Your task to perform on an android device: Open location settings Image 0: 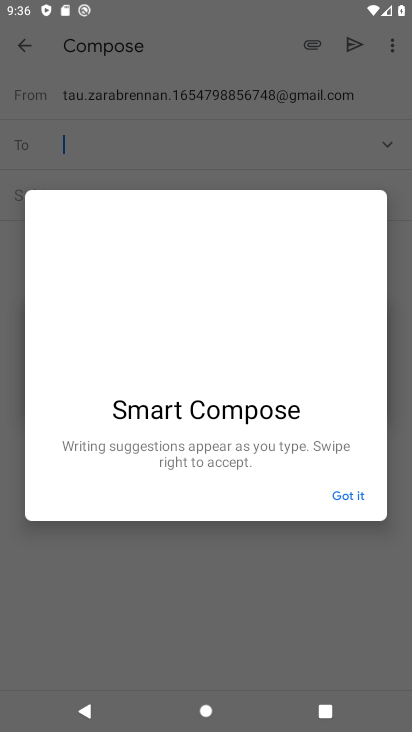
Step 0: press back button
Your task to perform on an android device: Open location settings Image 1: 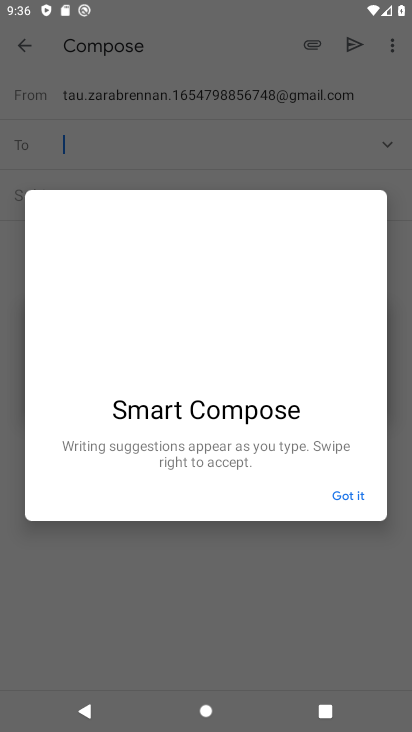
Step 1: click (365, 490)
Your task to perform on an android device: Open location settings Image 2: 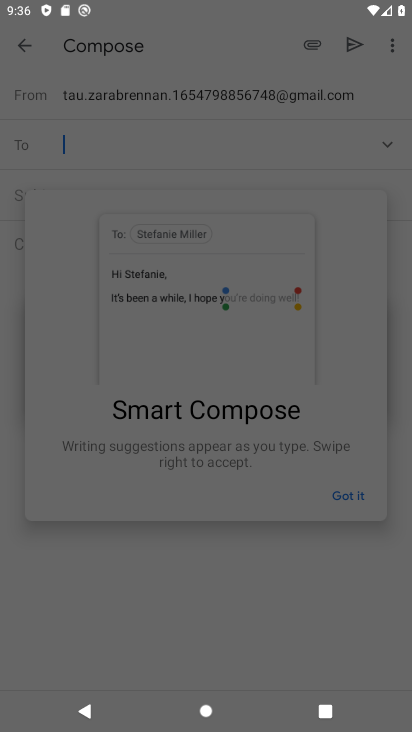
Step 2: press back button
Your task to perform on an android device: Open location settings Image 3: 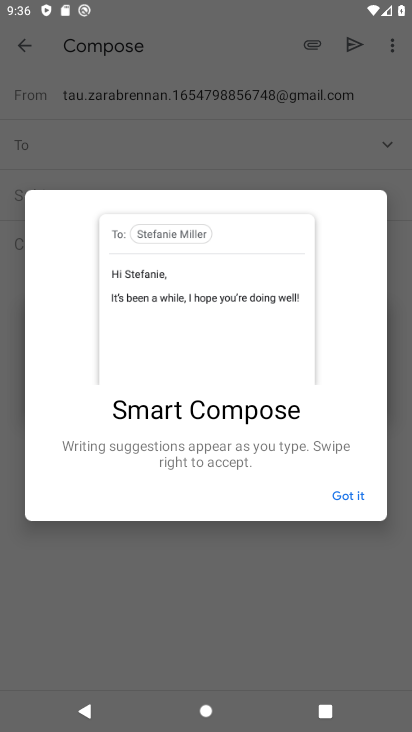
Step 3: click (353, 499)
Your task to perform on an android device: Open location settings Image 4: 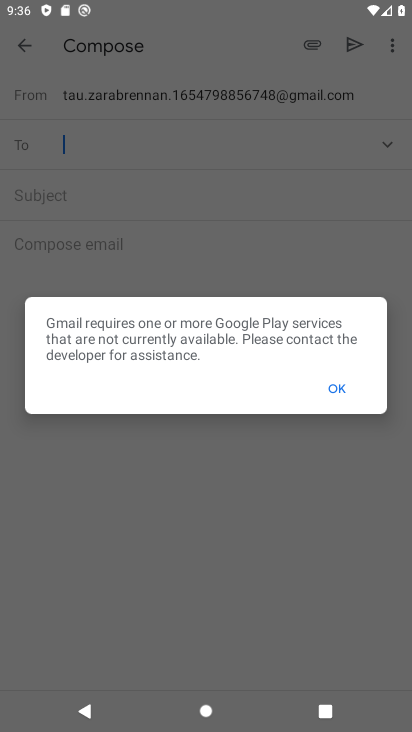
Step 4: click (350, 384)
Your task to perform on an android device: Open location settings Image 5: 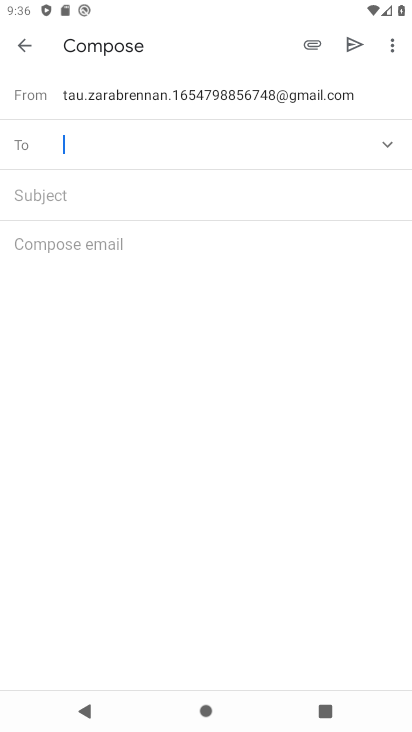
Step 5: press back button
Your task to perform on an android device: Open location settings Image 6: 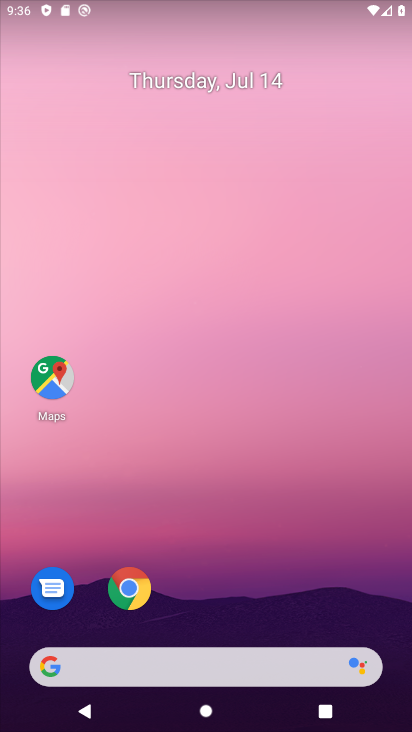
Step 6: drag from (306, 575) to (336, 35)
Your task to perform on an android device: Open location settings Image 7: 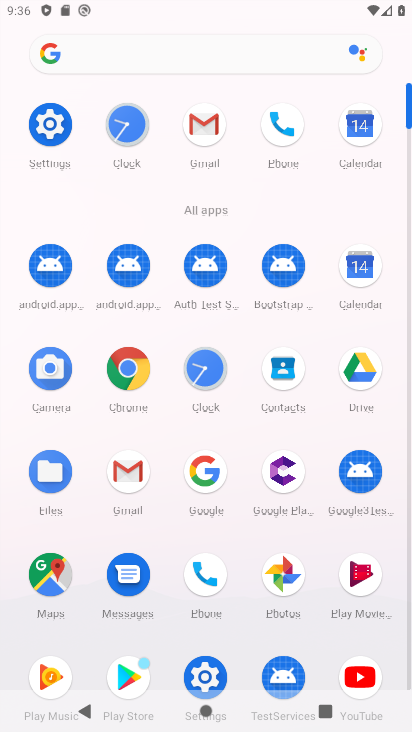
Step 7: click (62, 128)
Your task to perform on an android device: Open location settings Image 8: 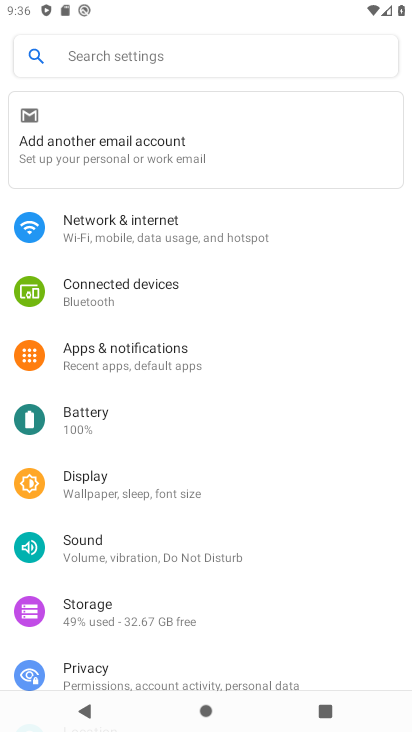
Step 8: drag from (144, 655) to (274, 114)
Your task to perform on an android device: Open location settings Image 9: 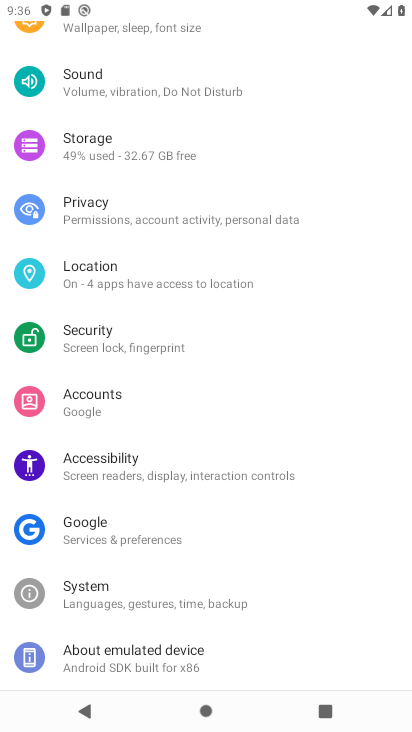
Step 9: click (110, 284)
Your task to perform on an android device: Open location settings Image 10: 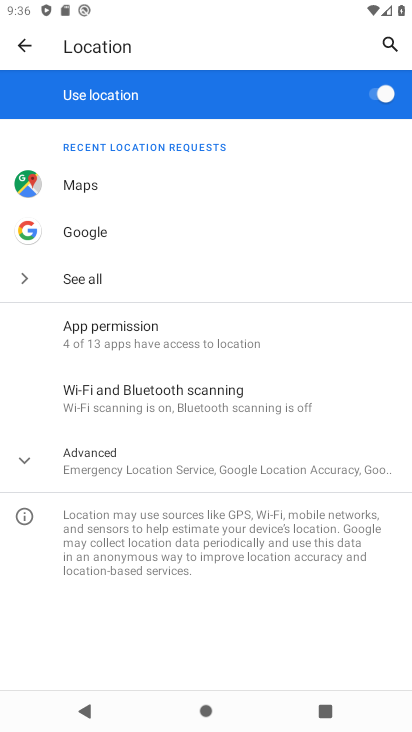
Step 10: task complete